Your task to perform on an android device: manage bookmarks in the chrome app Image 0: 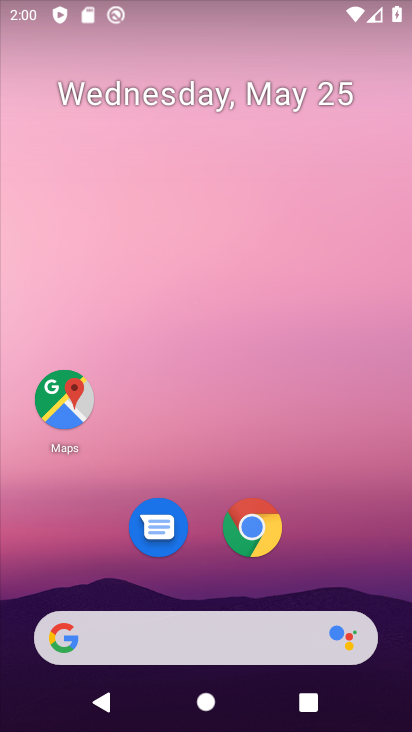
Step 0: click (365, 89)
Your task to perform on an android device: manage bookmarks in the chrome app Image 1: 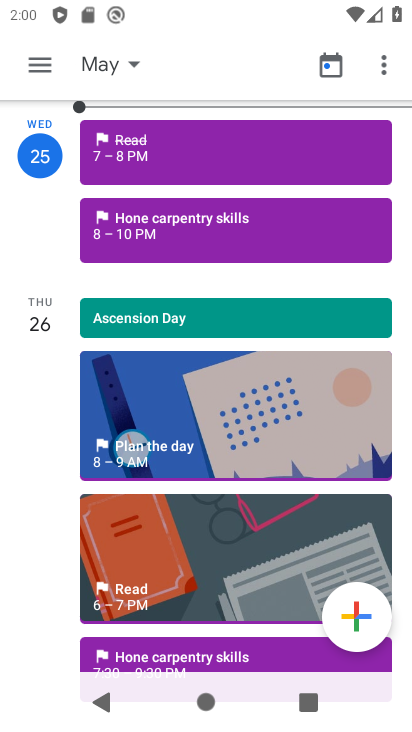
Step 1: press home button
Your task to perform on an android device: manage bookmarks in the chrome app Image 2: 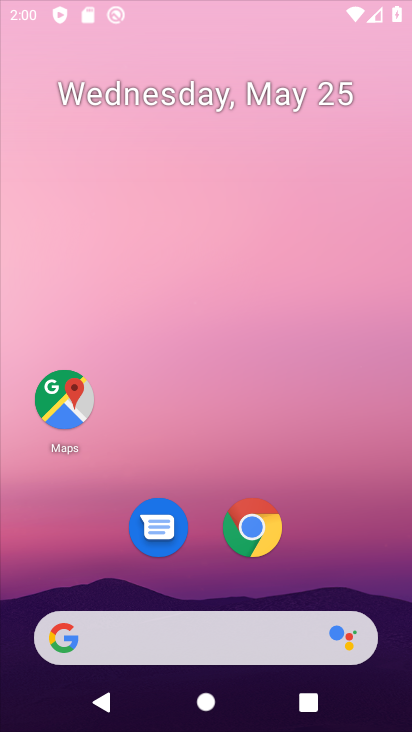
Step 2: drag from (234, 559) to (402, 363)
Your task to perform on an android device: manage bookmarks in the chrome app Image 3: 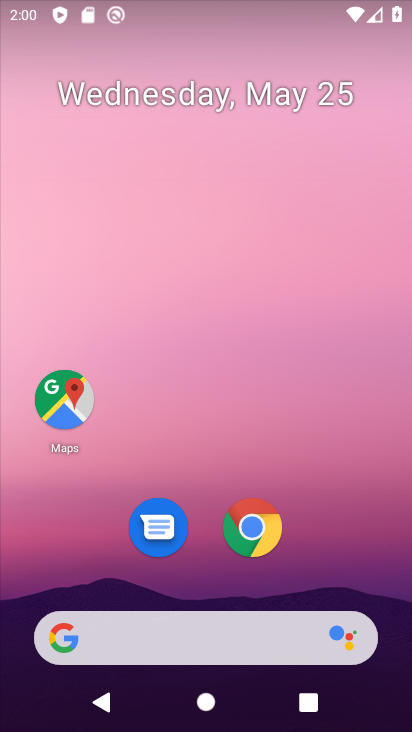
Step 3: click (242, 541)
Your task to perform on an android device: manage bookmarks in the chrome app Image 4: 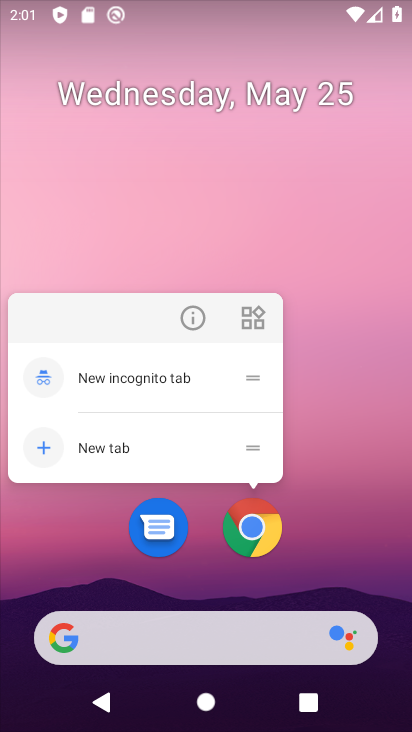
Step 4: click (195, 303)
Your task to perform on an android device: manage bookmarks in the chrome app Image 5: 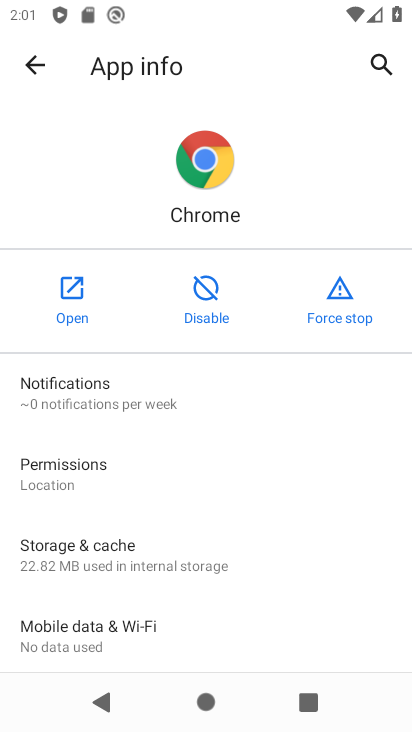
Step 5: click (40, 293)
Your task to perform on an android device: manage bookmarks in the chrome app Image 6: 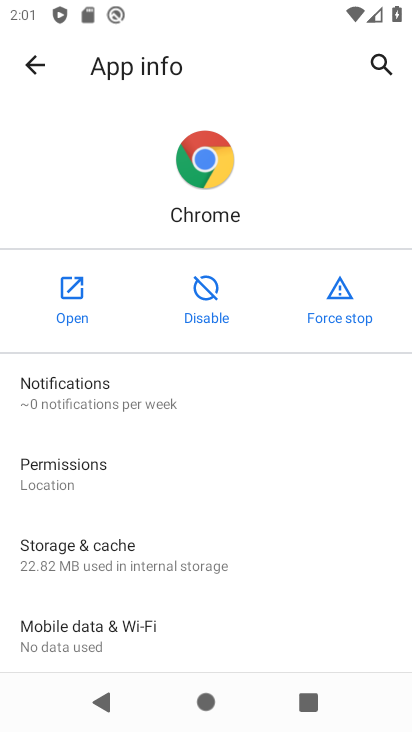
Step 6: click (44, 296)
Your task to perform on an android device: manage bookmarks in the chrome app Image 7: 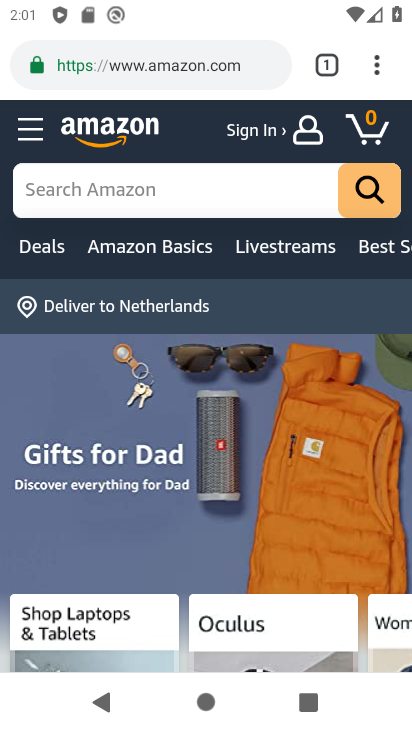
Step 7: click (379, 61)
Your task to perform on an android device: manage bookmarks in the chrome app Image 8: 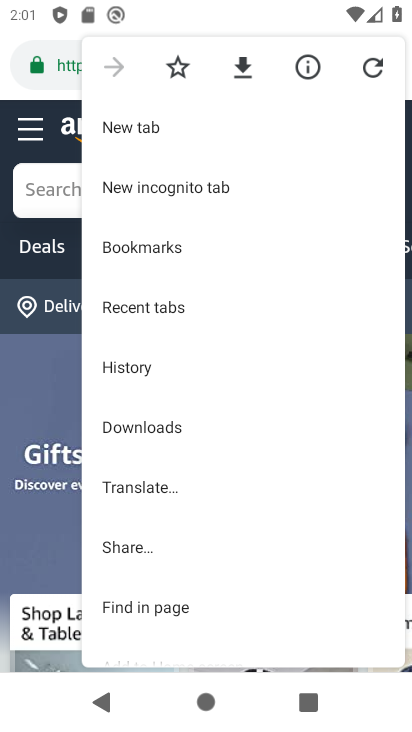
Step 8: click (158, 258)
Your task to perform on an android device: manage bookmarks in the chrome app Image 9: 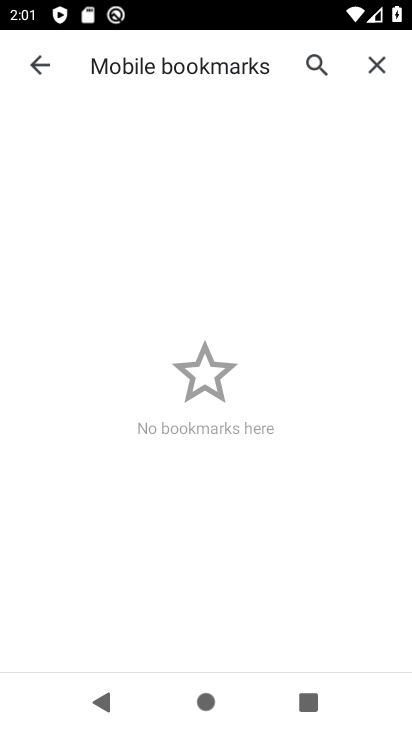
Step 9: task complete